Your task to perform on an android device: toggle pop-ups in chrome Image 0: 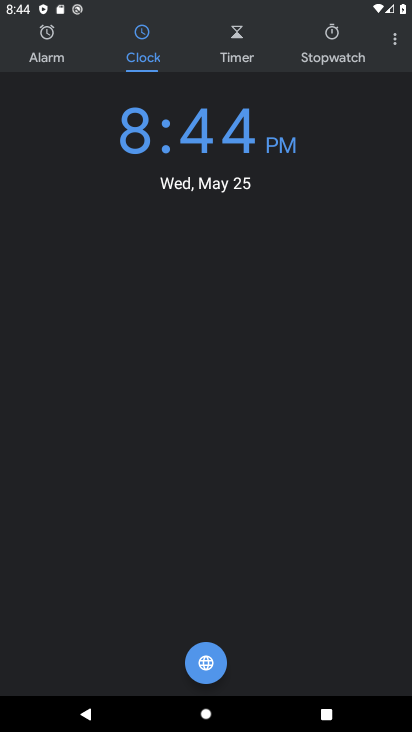
Step 0: press home button
Your task to perform on an android device: toggle pop-ups in chrome Image 1: 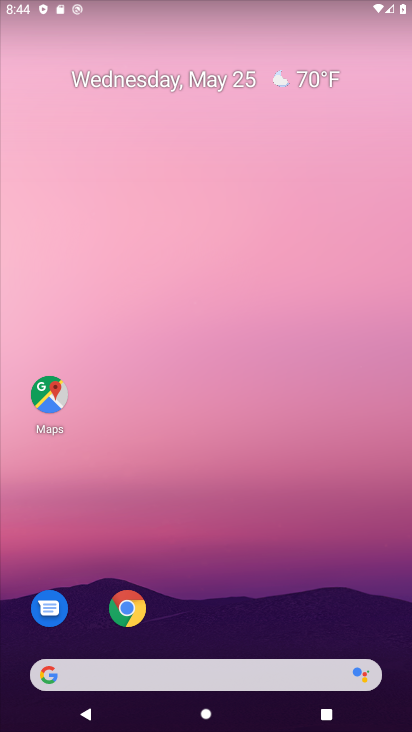
Step 1: click (126, 600)
Your task to perform on an android device: toggle pop-ups in chrome Image 2: 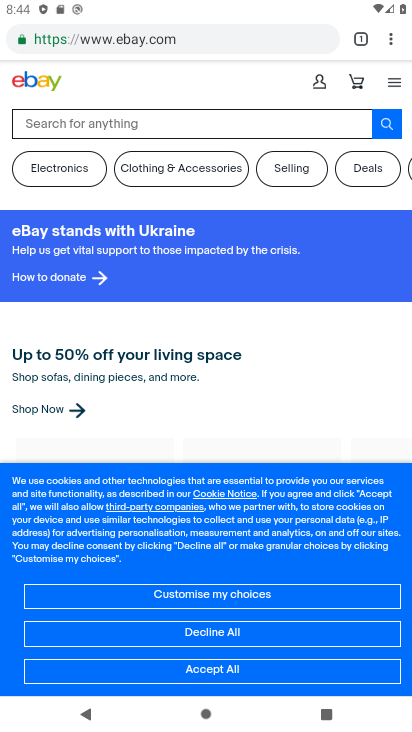
Step 2: click (392, 39)
Your task to perform on an android device: toggle pop-ups in chrome Image 3: 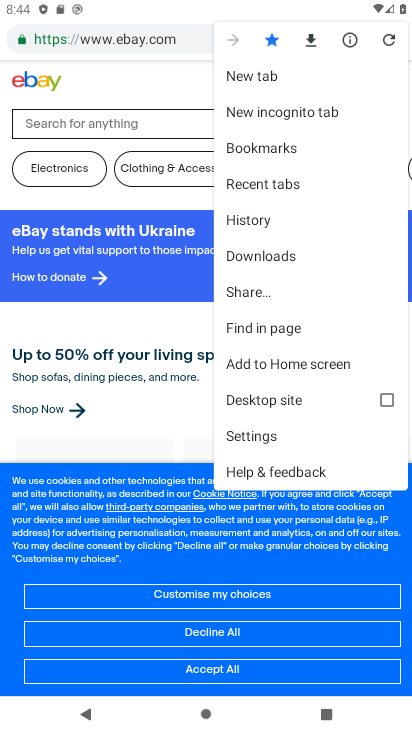
Step 3: click (256, 420)
Your task to perform on an android device: toggle pop-ups in chrome Image 4: 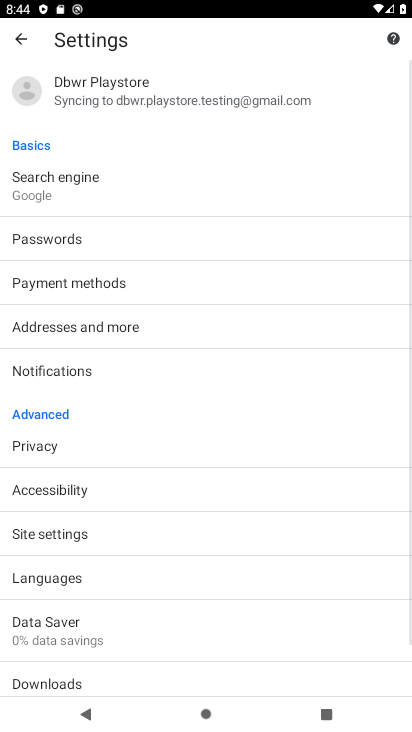
Step 4: click (132, 548)
Your task to perform on an android device: toggle pop-ups in chrome Image 5: 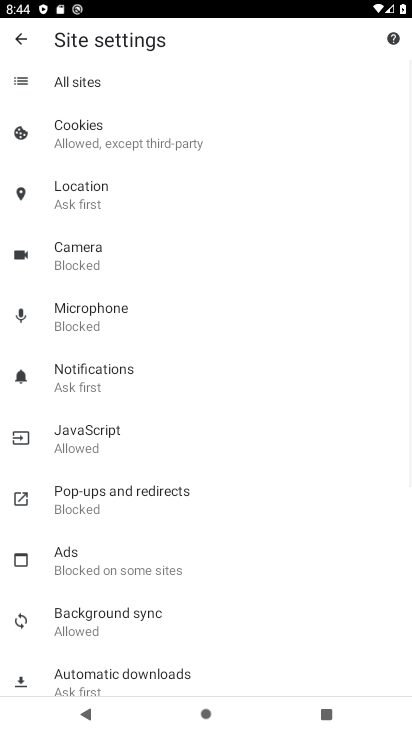
Step 5: click (132, 507)
Your task to perform on an android device: toggle pop-ups in chrome Image 6: 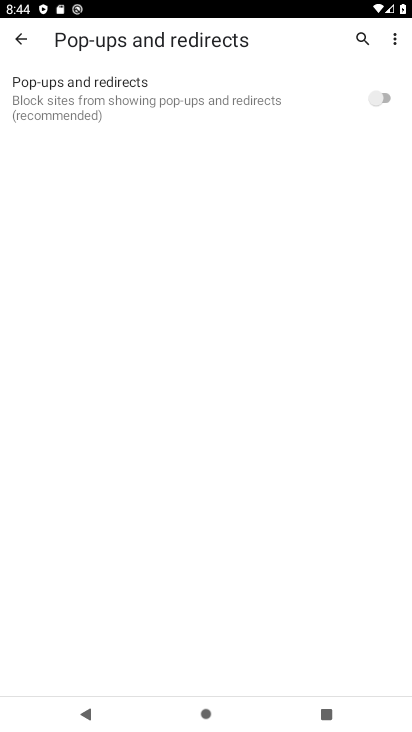
Step 6: click (375, 94)
Your task to perform on an android device: toggle pop-ups in chrome Image 7: 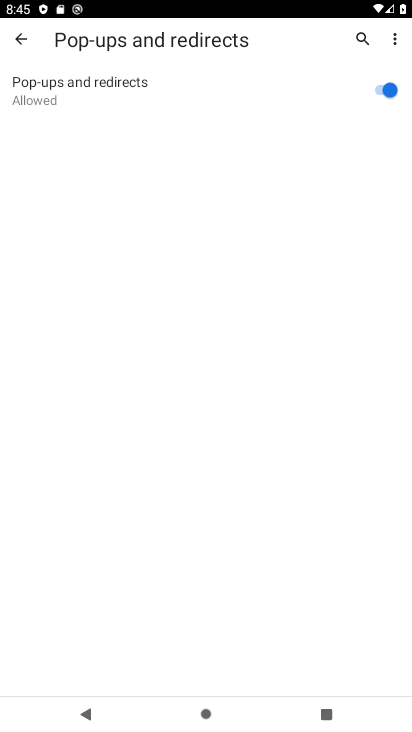
Step 7: task complete